Your task to perform on an android device: How much does the new iPad cost on eBay? Image 0: 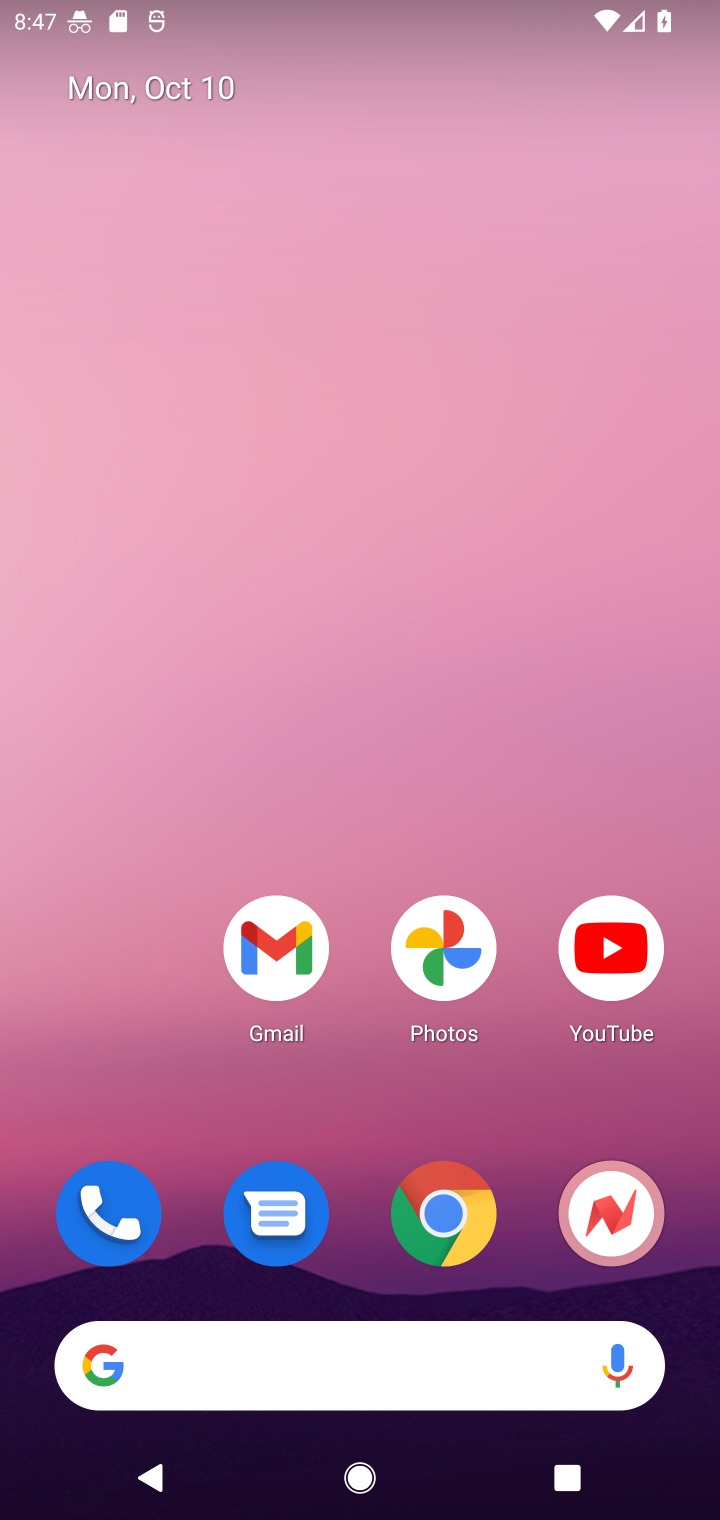
Step 0: click (391, 1357)
Your task to perform on an android device: How much does the new iPad cost on eBay? Image 1: 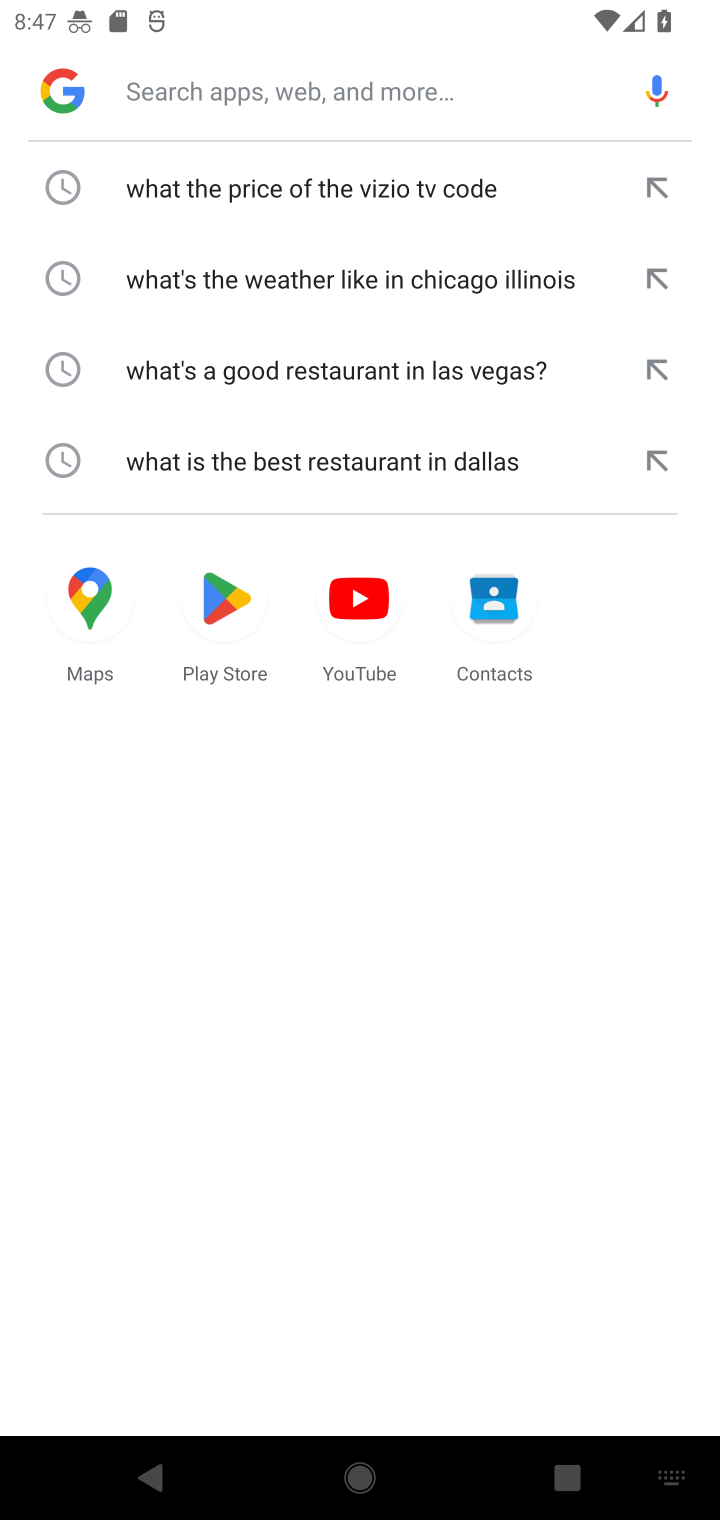
Step 1: click (258, 76)
Your task to perform on an android device: How much does the new iPad cost on eBay? Image 2: 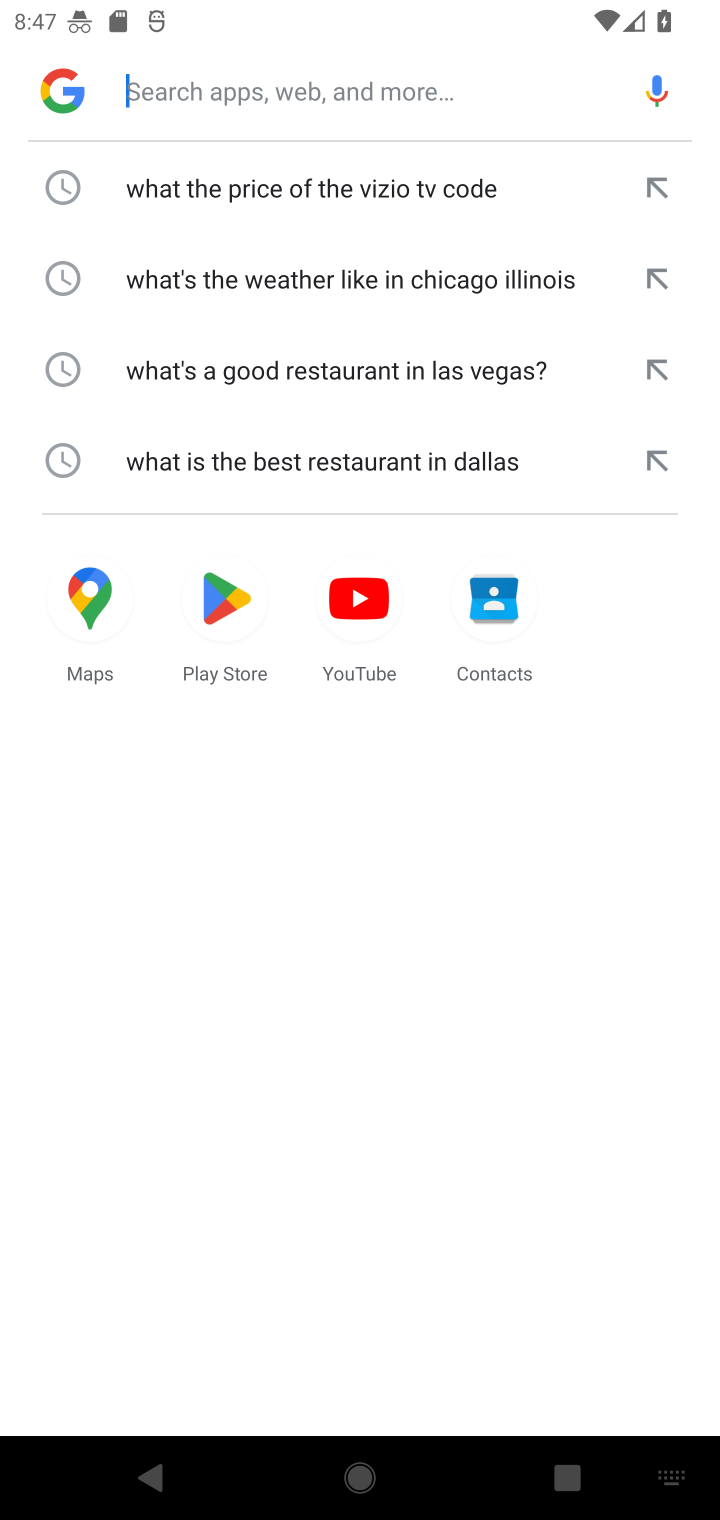
Step 2: type "How much does the new iPad cost on eBay?"
Your task to perform on an android device: How much does the new iPad cost on eBay? Image 3: 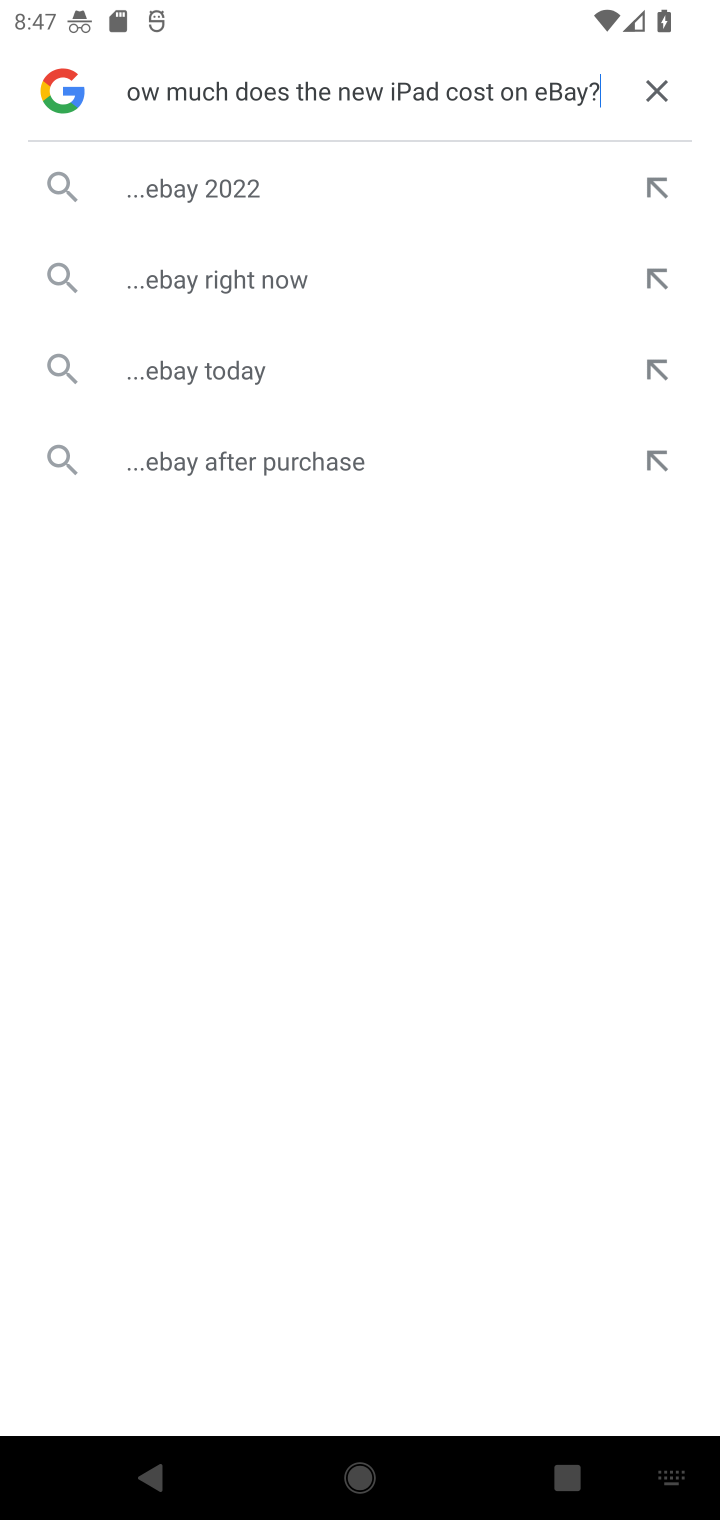
Step 3: click (191, 191)
Your task to perform on an android device: How much does the new iPad cost on eBay? Image 4: 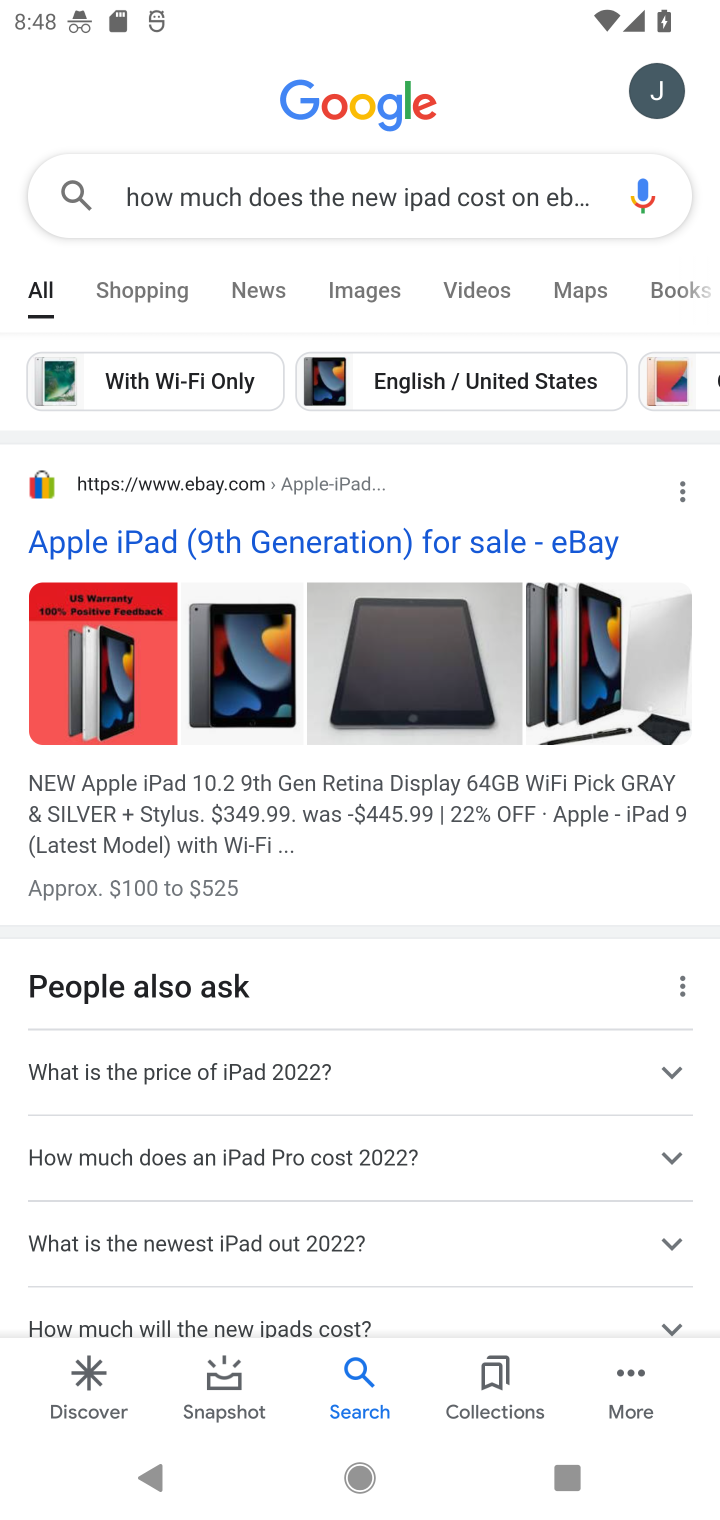
Step 4: task complete